Your task to perform on an android device: Open accessibility settings Image 0: 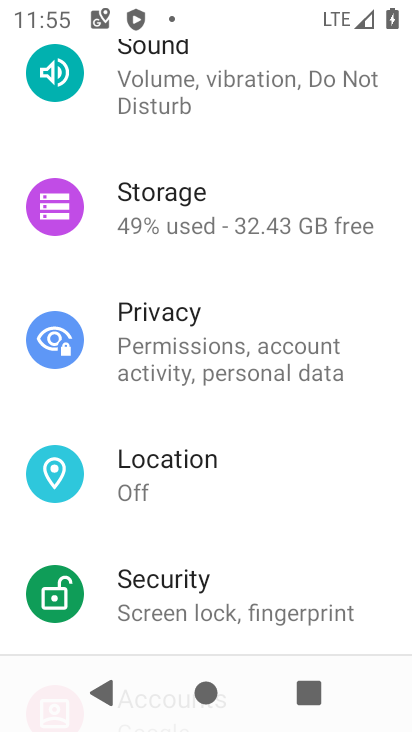
Step 0: drag from (297, 617) to (276, 107)
Your task to perform on an android device: Open accessibility settings Image 1: 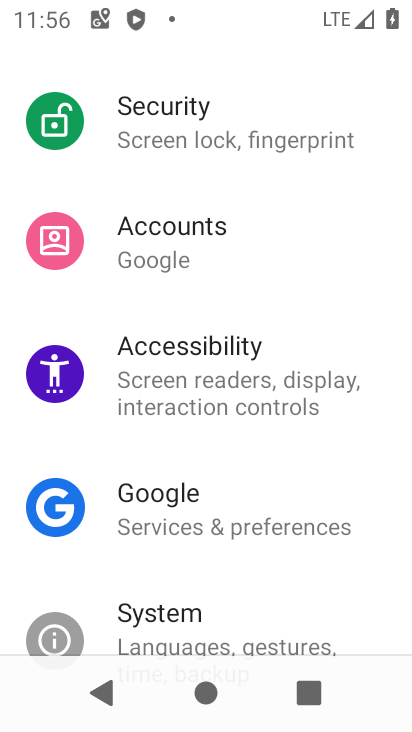
Step 1: drag from (297, 467) to (302, 128)
Your task to perform on an android device: Open accessibility settings Image 2: 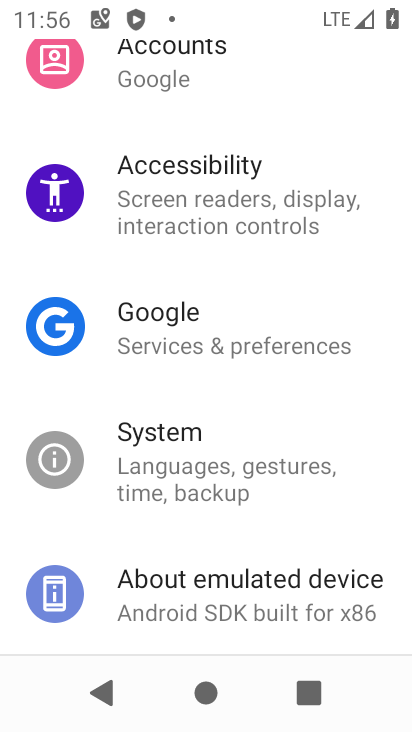
Step 2: click (264, 166)
Your task to perform on an android device: Open accessibility settings Image 3: 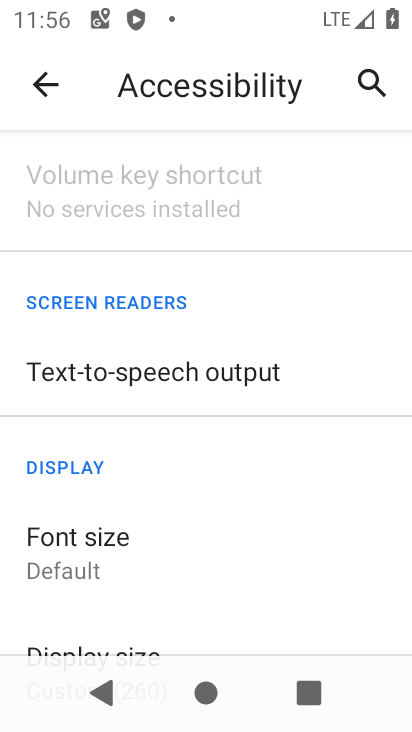
Step 3: task complete